Your task to perform on an android device: turn on improve location accuracy Image 0: 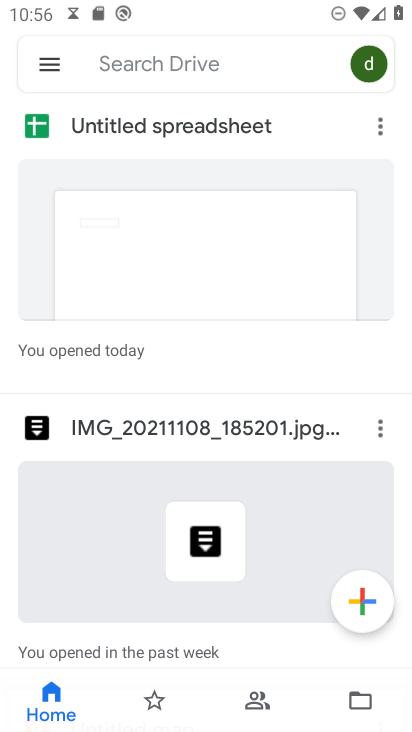
Step 0: press home button
Your task to perform on an android device: turn on improve location accuracy Image 1: 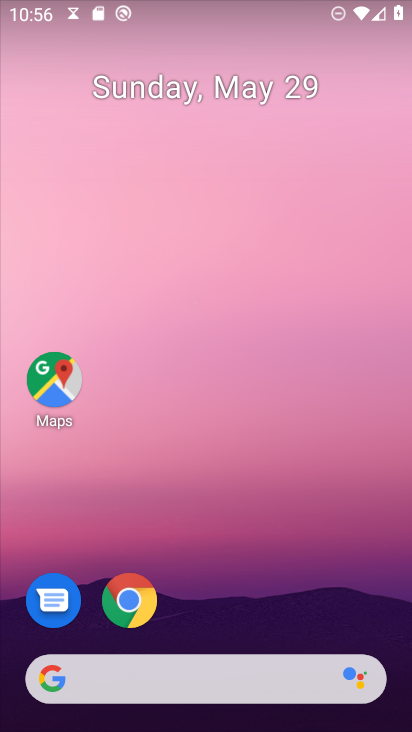
Step 1: drag from (241, 727) to (244, 296)
Your task to perform on an android device: turn on improve location accuracy Image 2: 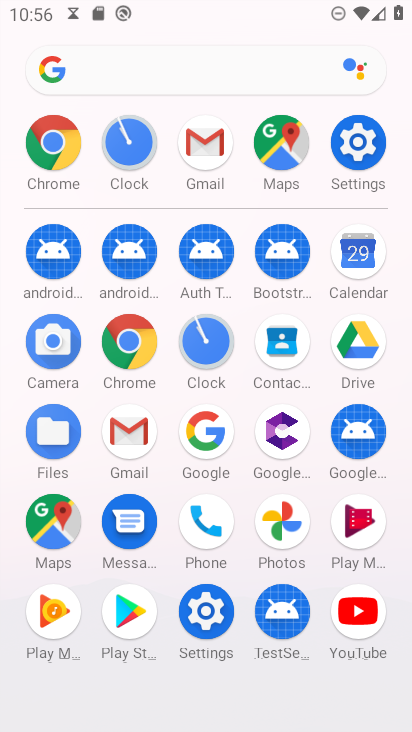
Step 2: click (363, 143)
Your task to perform on an android device: turn on improve location accuracy Image 3: 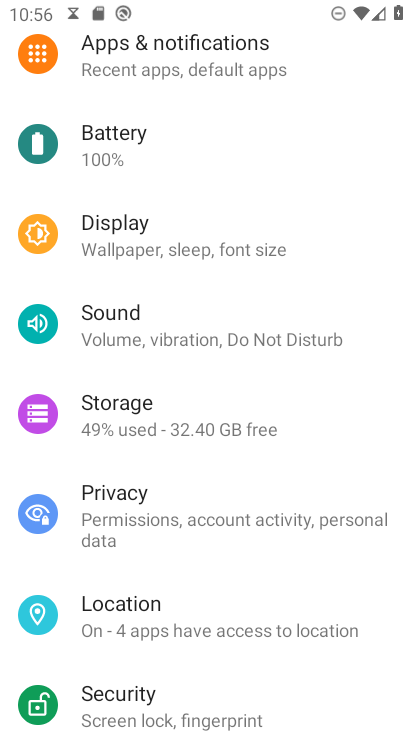
Step 3: click (148, 628)
Your task to perform on an android device: turn on improve location accuracy Image 4: 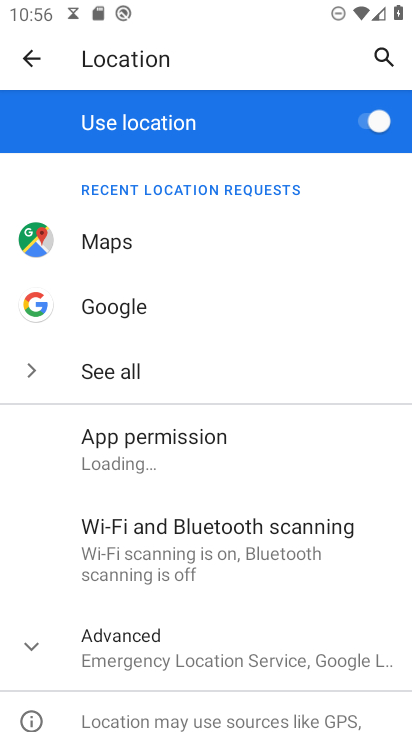
Step 4: drag from (159, 659) to (148, 361)
Your task to perform on an android device: turn on improve location accuracy Image 5: 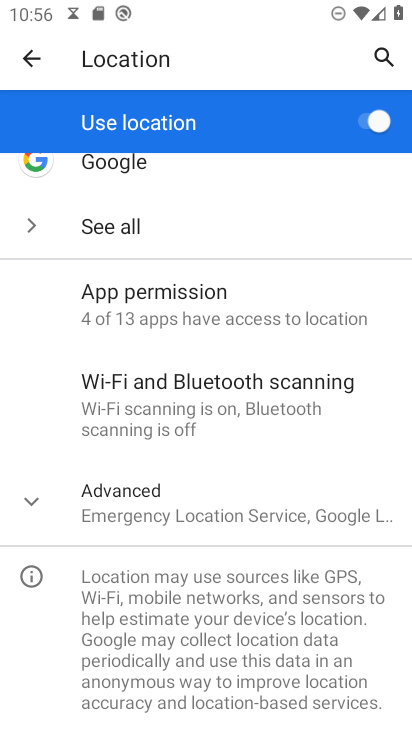
Step 5: click (159, 501)
Your task to perform on an android device: turn on improve location accuracy Image 6: 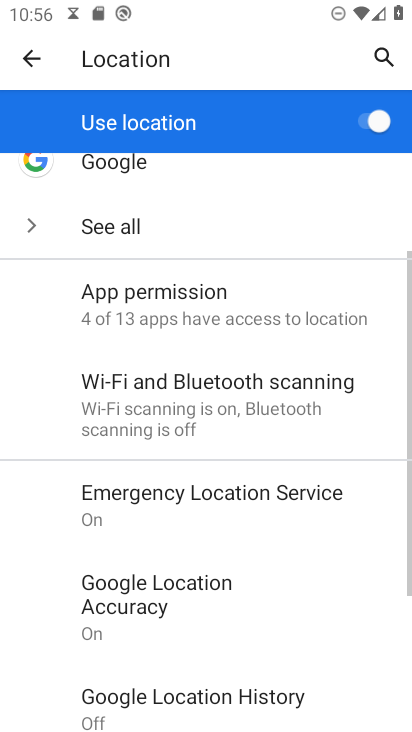
Step 6: drag from (172, 603) to (171, 370)
Your task to perform on an android device: turn on improve location accuracy Image 7: 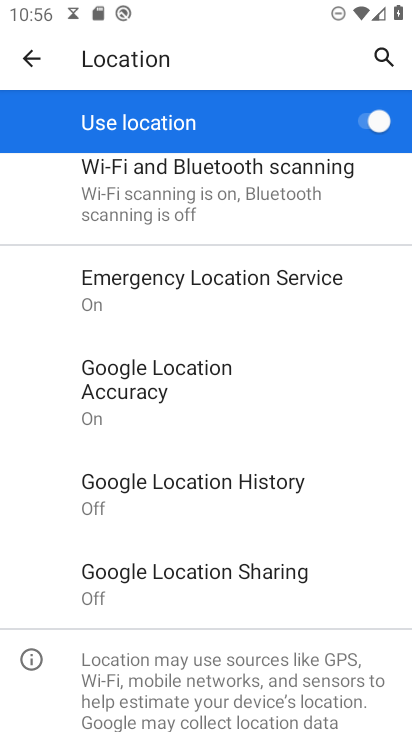
Step 7: click (166, 372)
Your task to perform on an android device: turn on improve location accuracy Image 8: 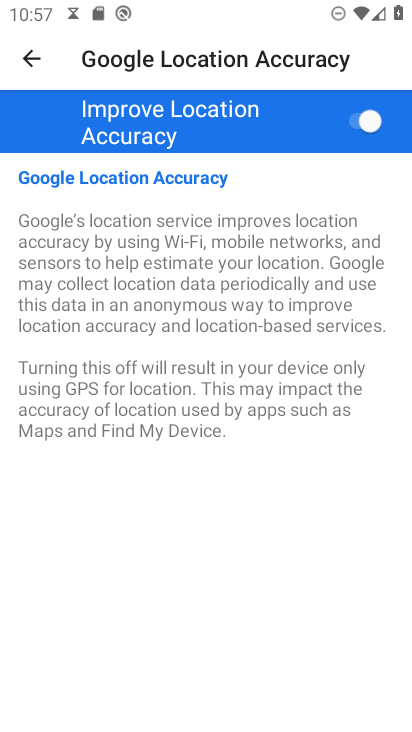
Step 8: task complete